Your task to perform on an android device: See recent photos Image 0: 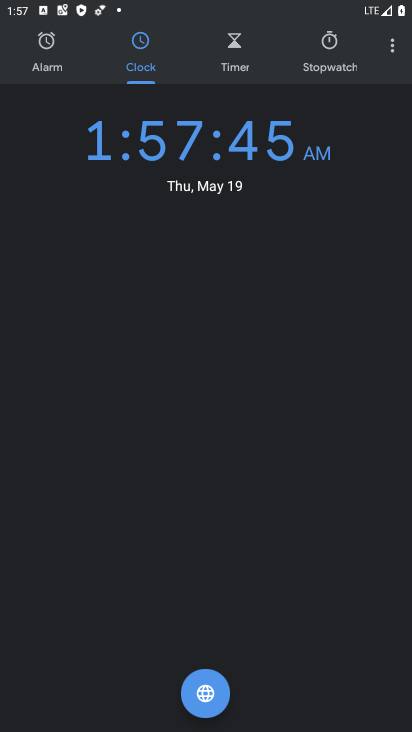
Step 0: press home button
Your task to perform on an android device: See recent photos Image 1: 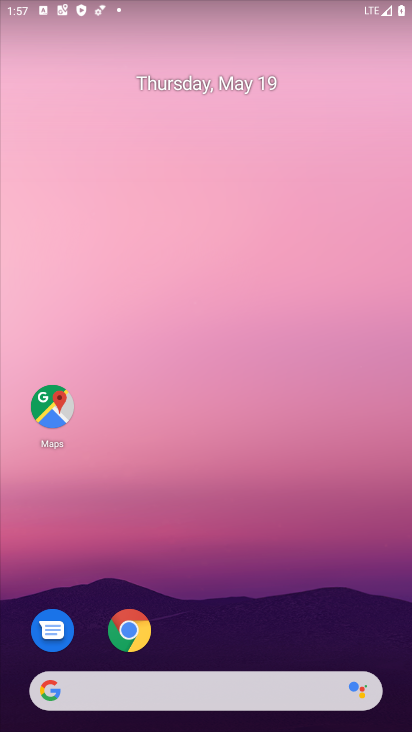
Step 1: drag from (391, 647) to (325, 64)
Your task to perform on an android device: See recent photos Image 2: 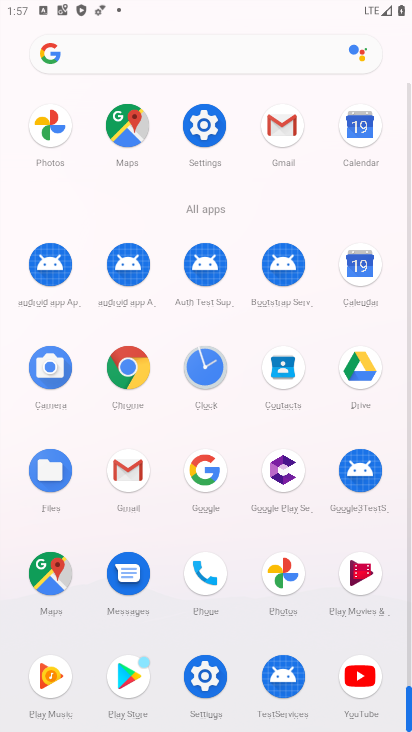
Step 2: click (282, 571)
Your task to perform on an android device: See recent photos Image 3: 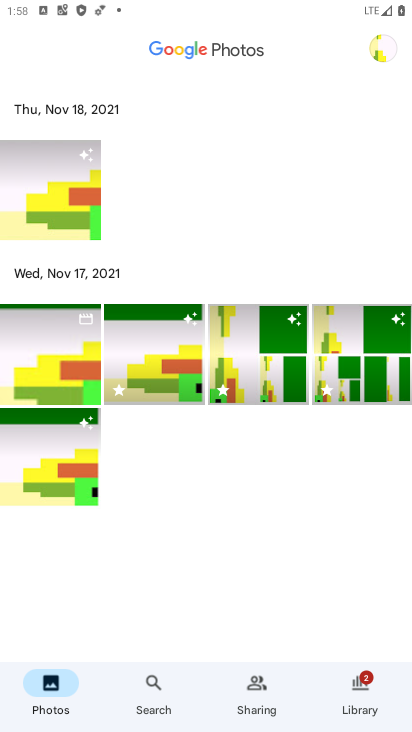
Step 3: task complete